Your task to perform on an android device: Open the phone app and click the voicemail tab. Image 0: 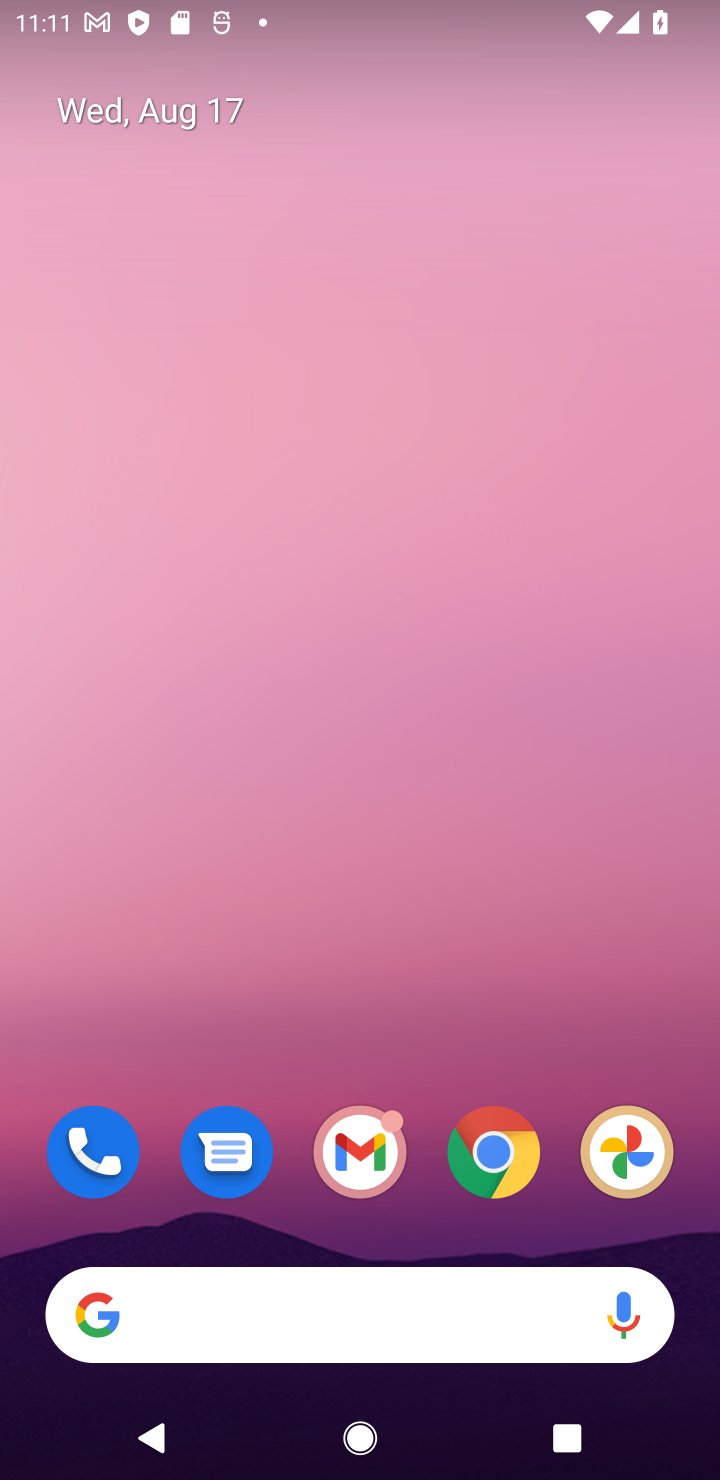
Step 0: drag from (557, 1231) to (412, 7)
Your task to perform on an android device: Open the phone app and click the voicemail tab. Image 1: 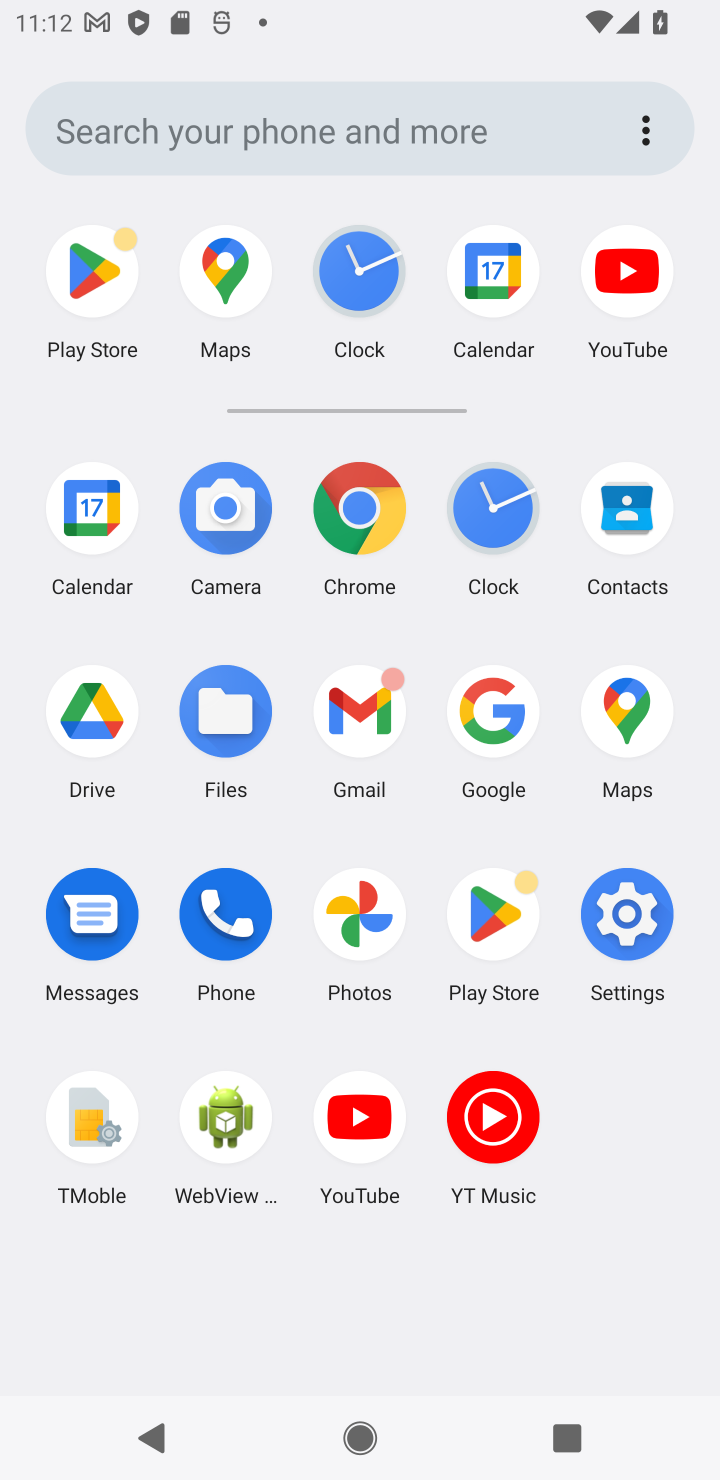
Step 1: click (215, 968)
Your task to perform on an android device: Open the phone app and click the voicemail tab. Image 2: 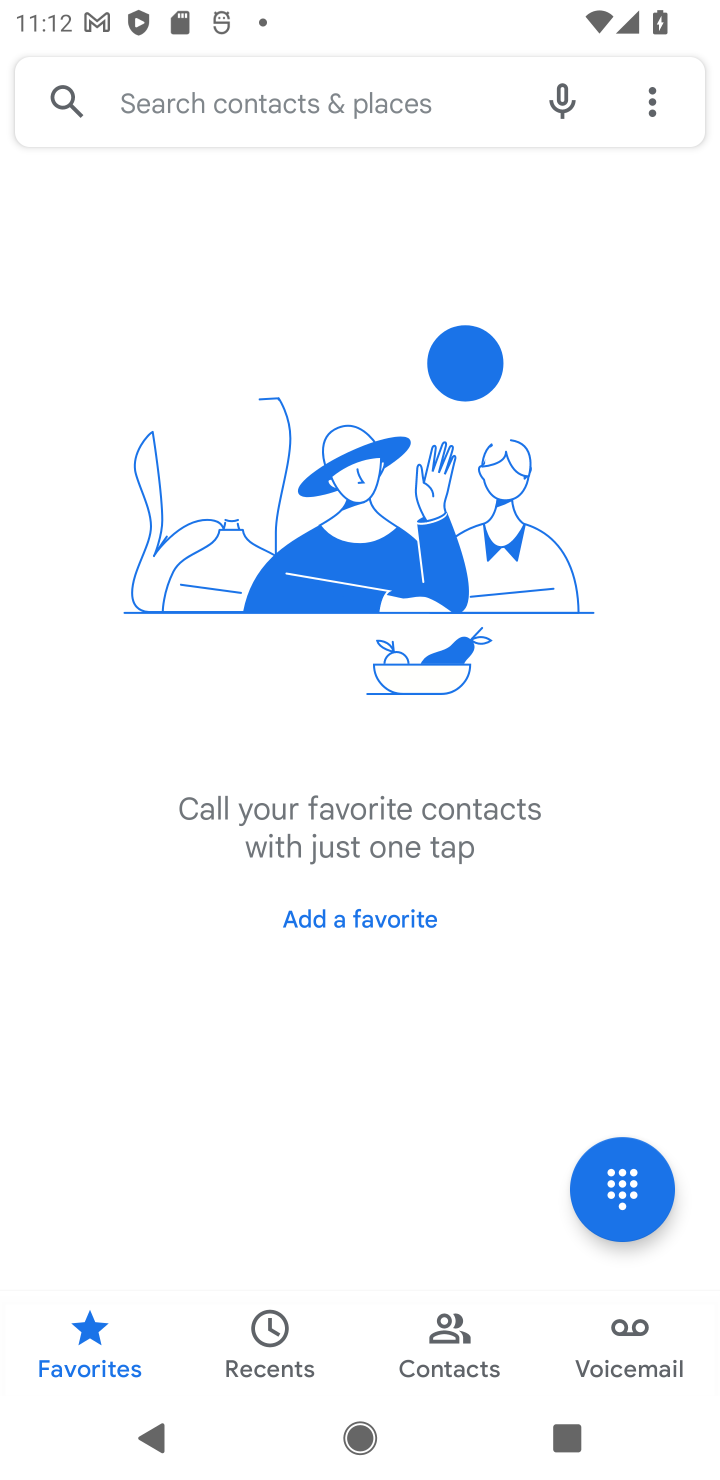
Step 2: click (628, 1332)
Your task to perform on an android device: Open the phone app and click the voicemail tab. Image 3: 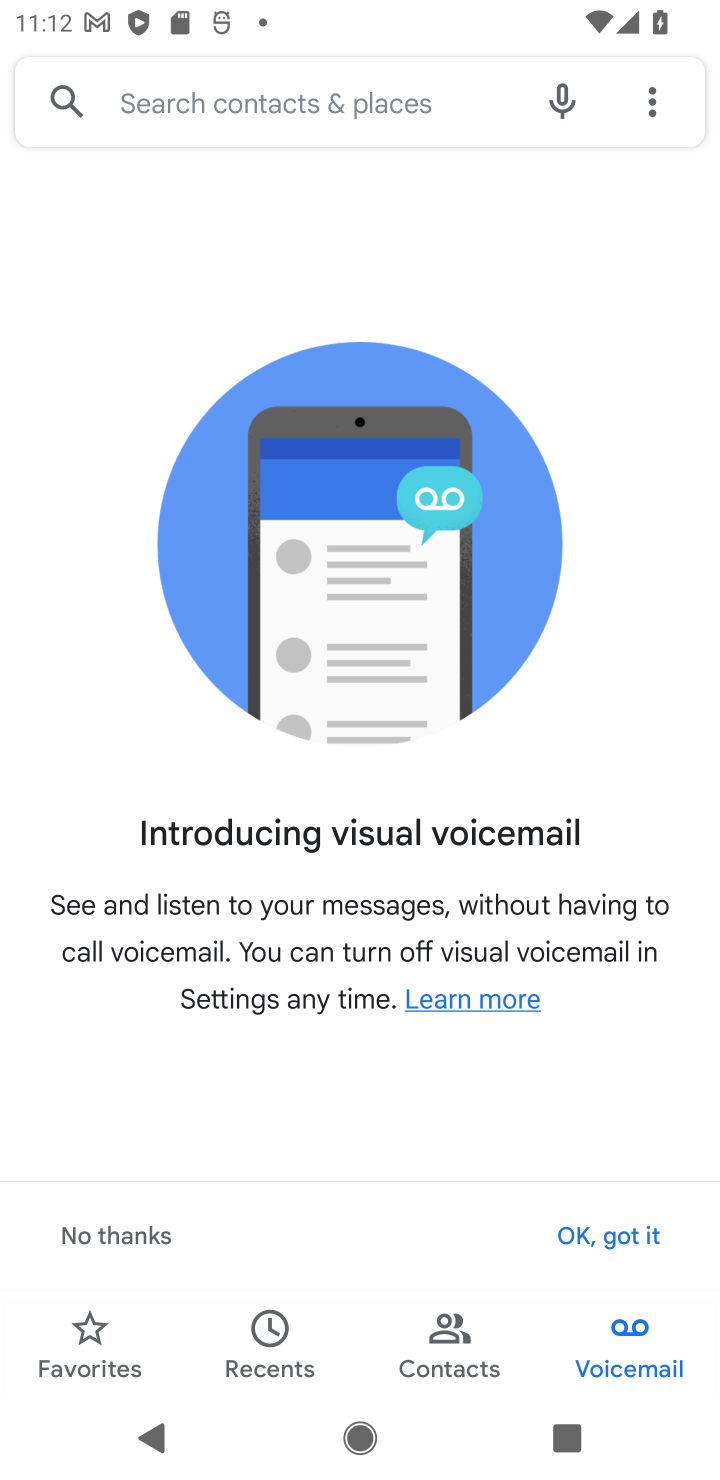
Step 3: task complete